Your task to perform on an android device: Search for the best rated 4K TV on Best Buy. Image 0: 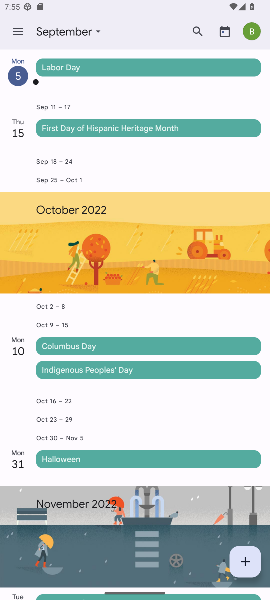
Step 0: press home button
Your task to perform on an android device: Search for the best rated 4K TV on Best Buy. Image 1: 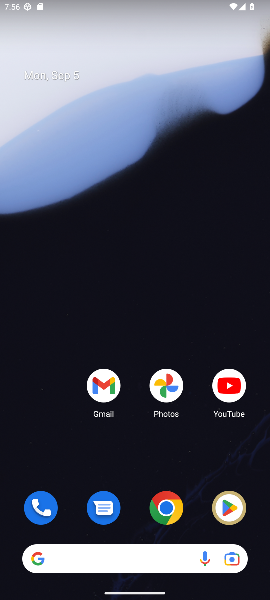
Step 1: click (158, 507)
Your task to perform on an android device: Search for the best rated 4K TV on Best Buy. Image 2: 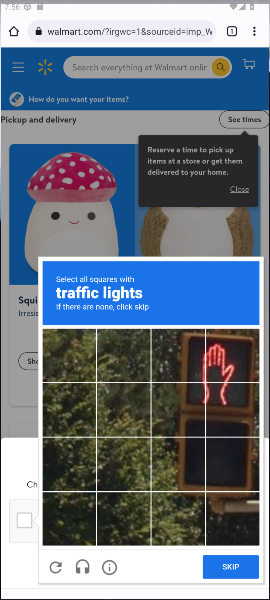
Step 2: click (111, 27)
Your task to perform on an android device: Search for the best rated 4K TV on Best Buy. Image 3: 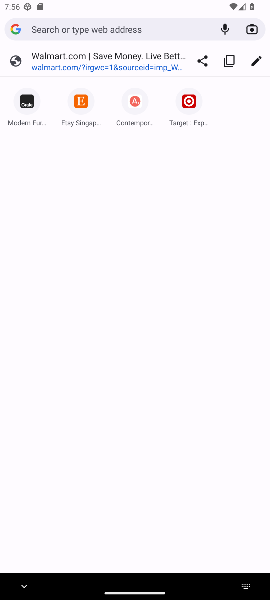
Step 3: type "best buy"
Your task to perform on an android device: Search for the best rated 4K TV on Best Buy. Image 4: 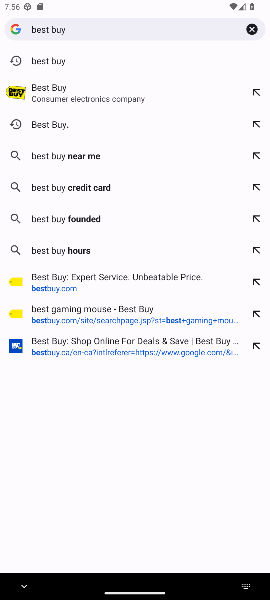
Step 4: click (54, 90)
Your task to perform on an android device: Search for the best rated 4K TV on Best Buy. Image 5: 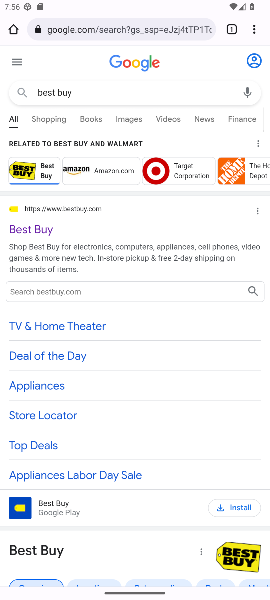
Step 5: click (34, 236)
Your task to perform on an android device: Search for the best rated 4K TV on Best Buy. Image 6: 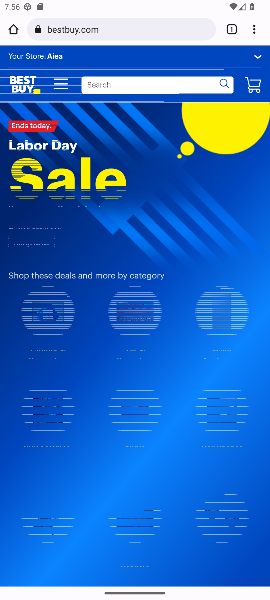
Step 6: click (120, 89)
Your task to perform on an android device: Search for the best rated 4K TV on Best Buy. Image 7: 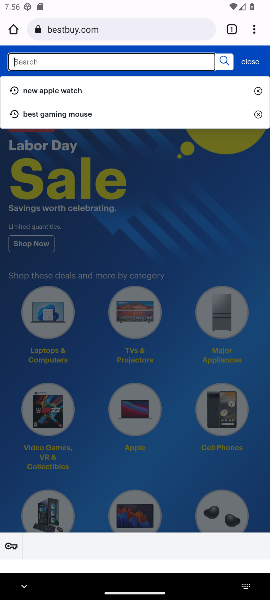
Step 7: type "best rated 4K TV"
Your task to perform on an android device: Search for the best rated 4K TV on Best Buy. Image 8: 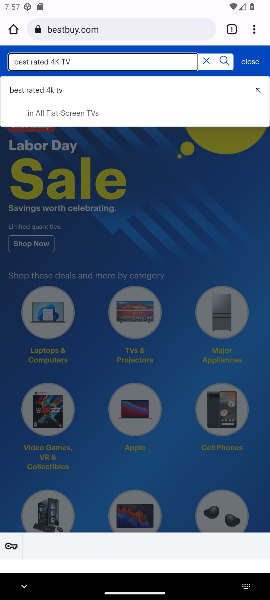
Step 8: click (227, 62)
Your task to perform on an android device: Search for the best rated 4K TV on Best Buy. Image 9: 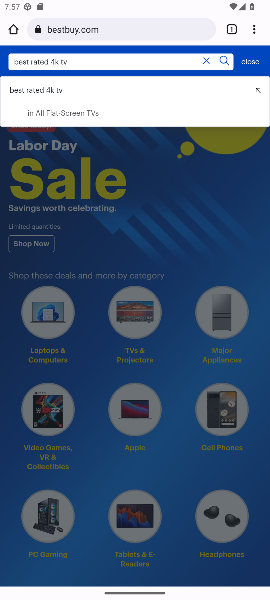
Step 9: click (224, 61)
Your task to perform on an android device: Search for the best rated 4K TV on Best Buy. Image 10: 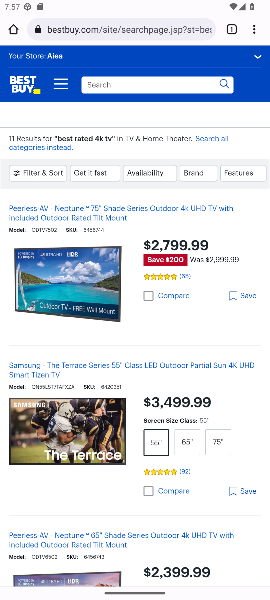
Step 10: task complete